Your task to perform on an android device: Go to notification settings Image 0: 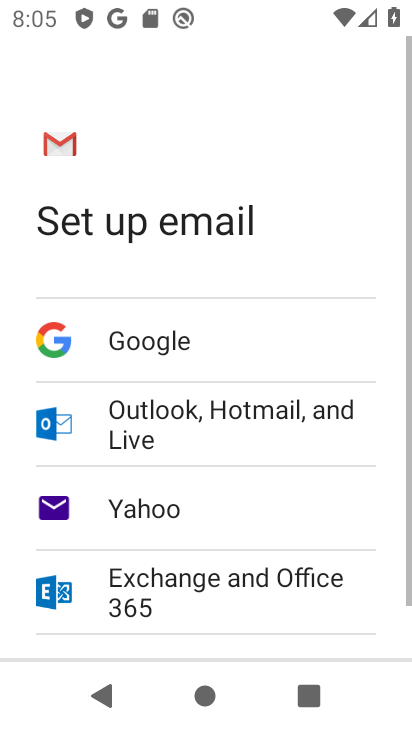
Step 0: press back button
Your task to perform on an android device: Go to notification settings Image 1: 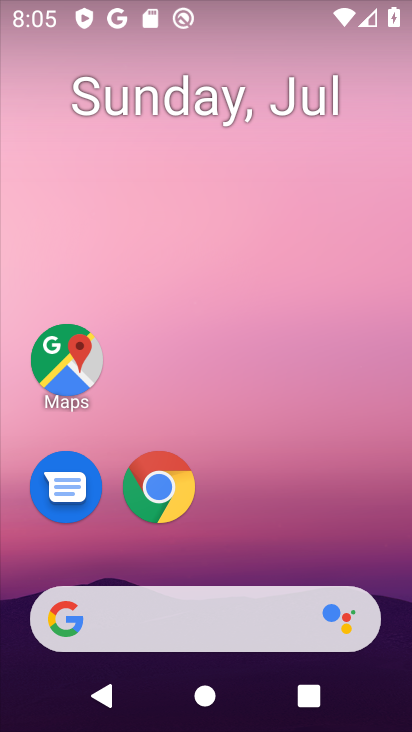
Step 1: drag from (253, 566) to (254, 4)
Your task to perform on an android device: Go to notification settings Image 2: 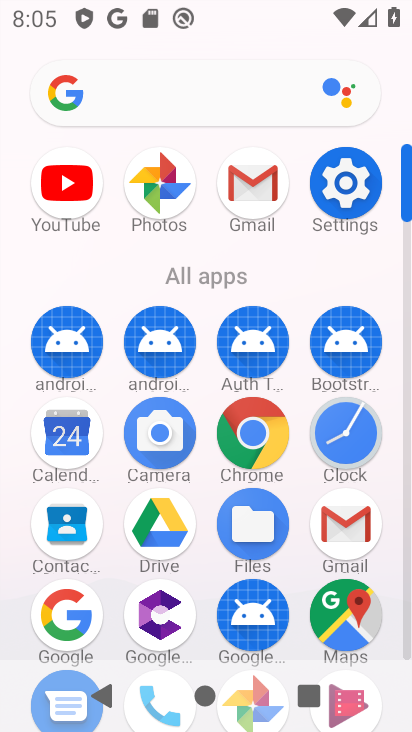
Step 2: click (364, 186)
Your task to perform on an android device: Go to notification settings Image 3: 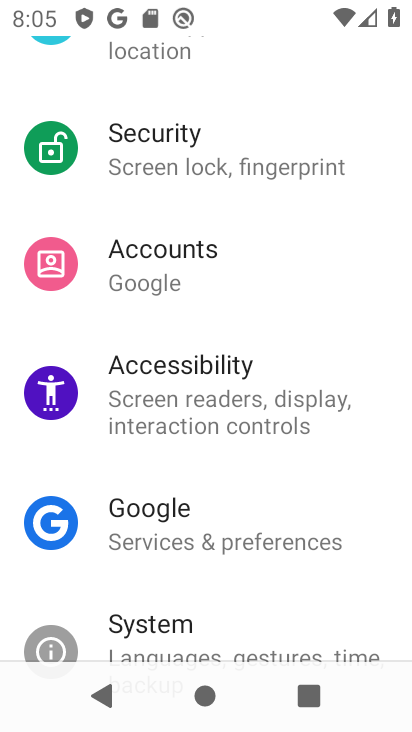
Step 3: drag from (263, 180) to (238, 730)
Your task to perform on an android device: Go to notification settings Image 4: 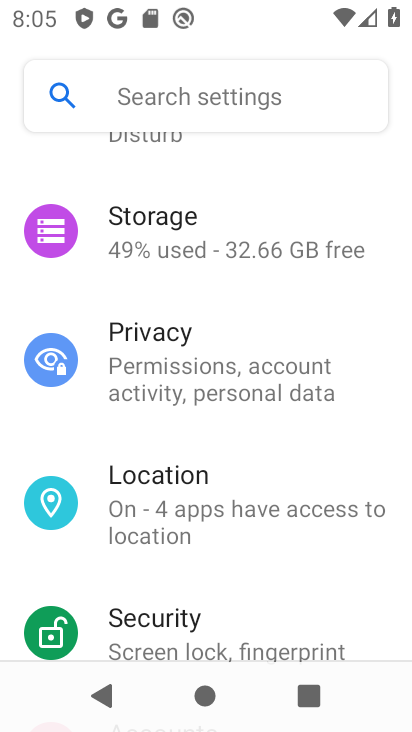
Step 4: drag from (300, 184) to (271, 614)
Your task to perform on an android device: Go to notification settings Image 5: 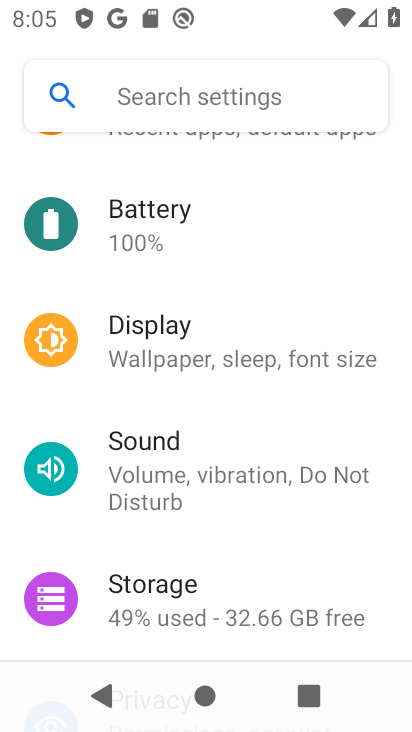
Step 5: drag from (207, 281) to (207, 574)
Your task to perform on an android device: Go to notification settings Image 6: 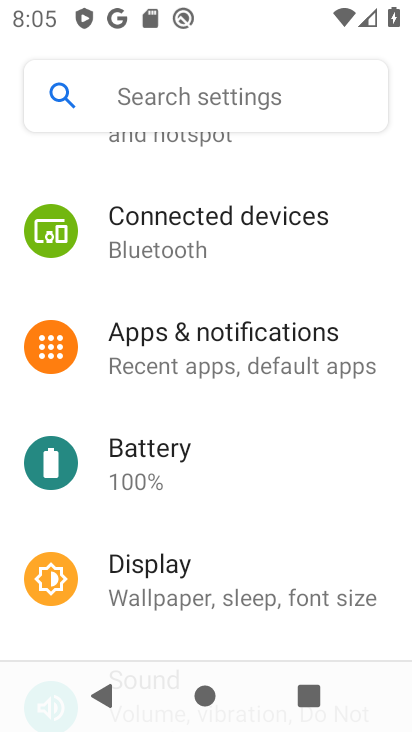
Step 6: click (270, 355)
Your task to perform on an android device: Go to notification settings Image 7: 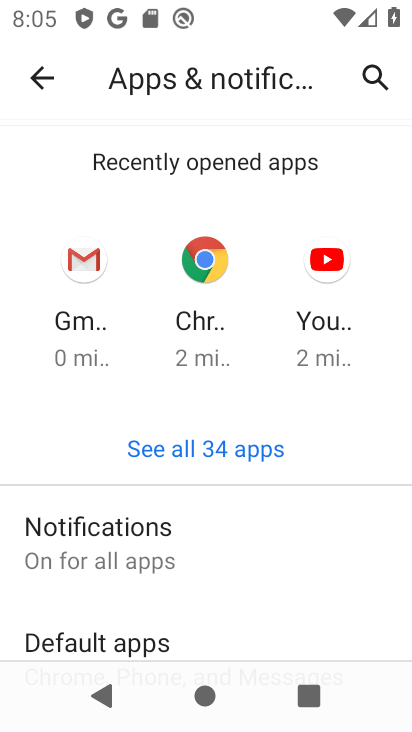
Step 7: task complete